Your task to perform on an android device: Open the phone app and click the voicemail tab. Image 0: 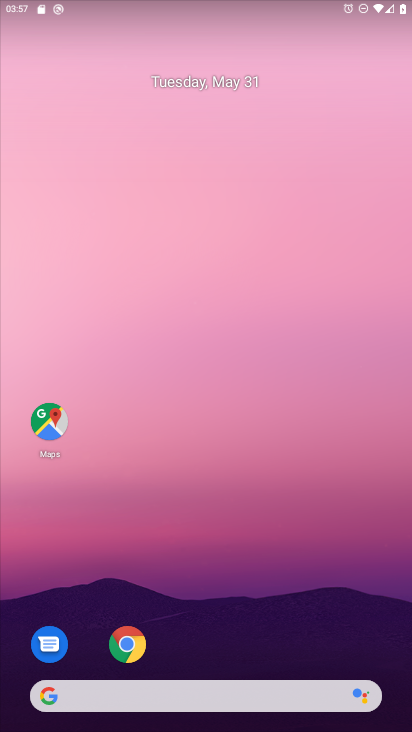
Step 0: drag from (235, 646) to (231, 194)
Your task to perform on an android device: Open the phone app and click the voicemail tab. Image 1: 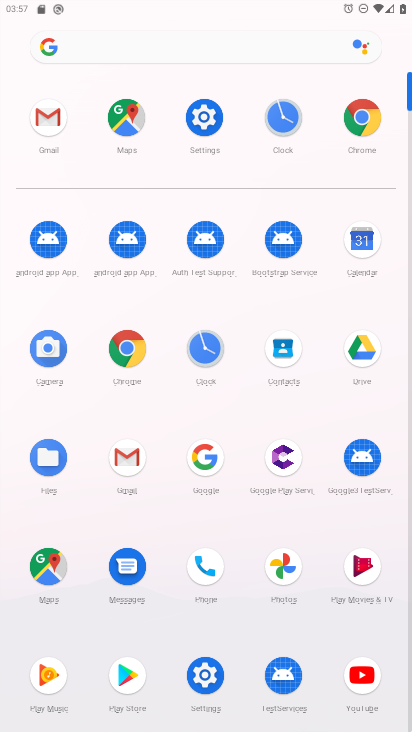
Step 1: click (208, 567)
Your task to perform on an android device: Open the phone app and click the voicemail tab. Image 2: 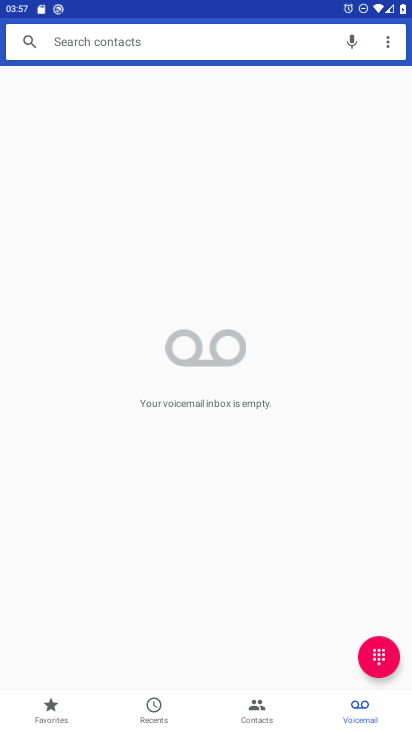
Step 2: click (358, 704)
Your task to perform on an android device: Open the phone app and click the voicemail tab. Image 3: 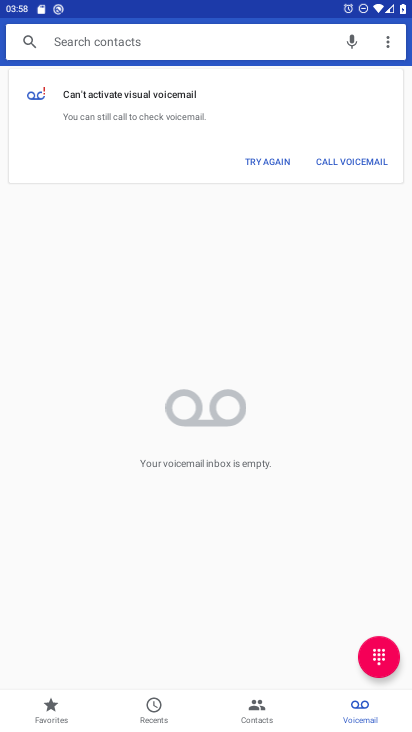
Step 3: task complete